Your task to perform on an android device: add a contact Image 0: 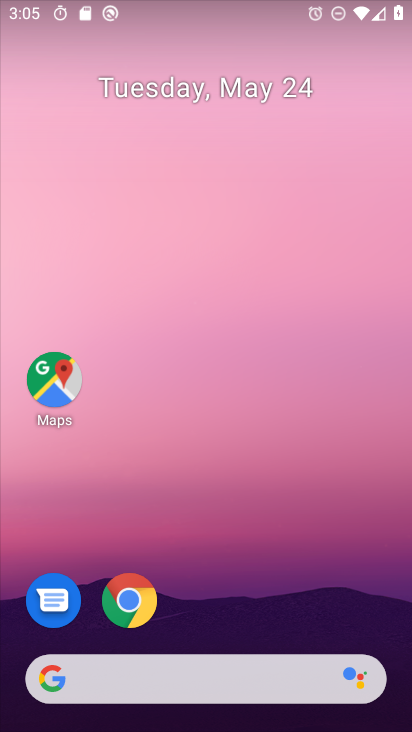
Step 0: drag from (250, 546) to (246, 172)
Your task to perform on an android device: add a contact Image 1: 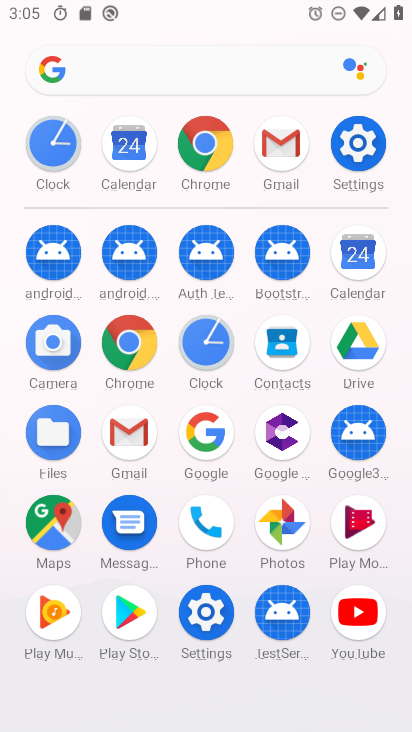
Step 1: click (275, 337)
Your task to perform on an android device: add a contact Image 2: 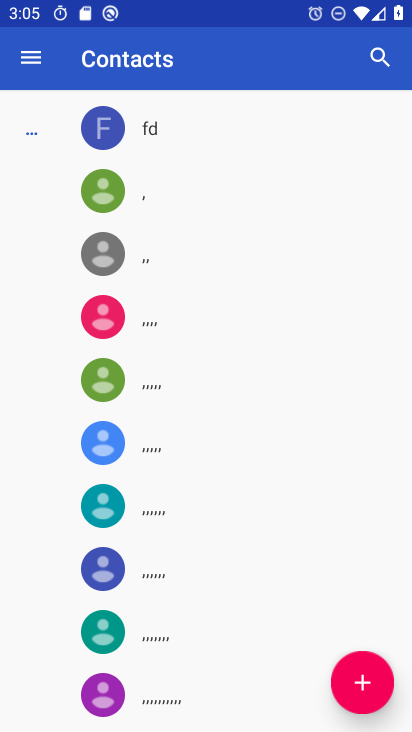
Step 2: click (358, 664)
Your task to perform on an android device: add a contact Image 3: 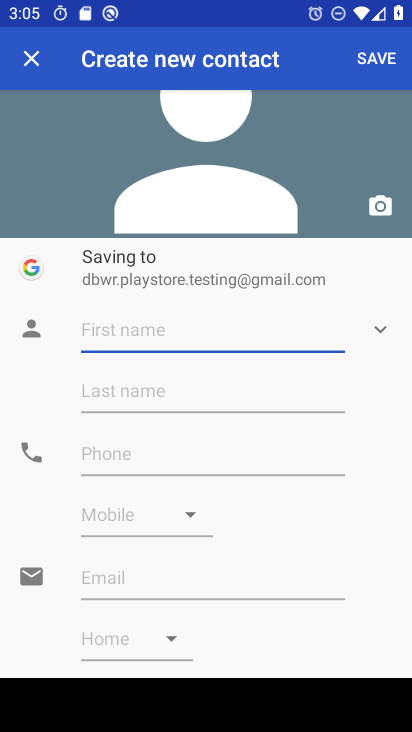
Step 3: type "lm,kj"
Your task to perform on an android device: add a contact Image 4: 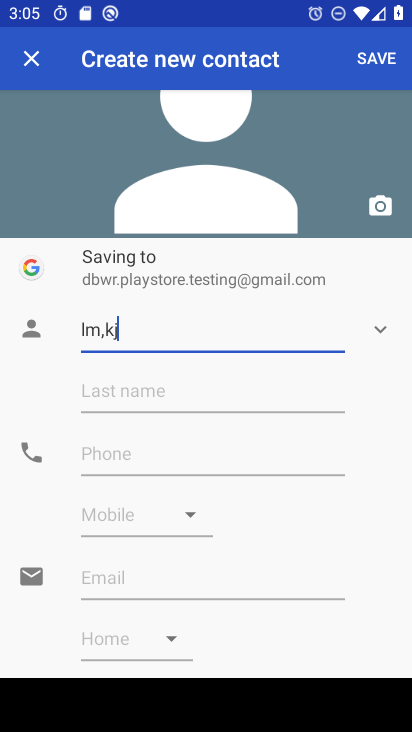
Step 4: type ""
Your task to perform on an android device: add a contact Image 5: 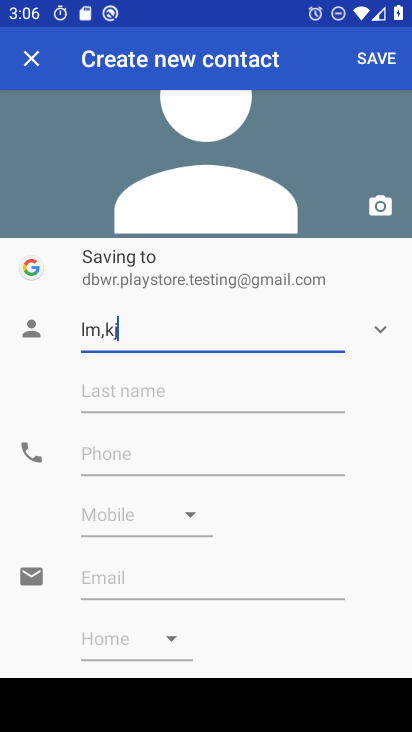
Step 5: click (378, 54)
Your task to perform on an android device: add a contact Image 6: 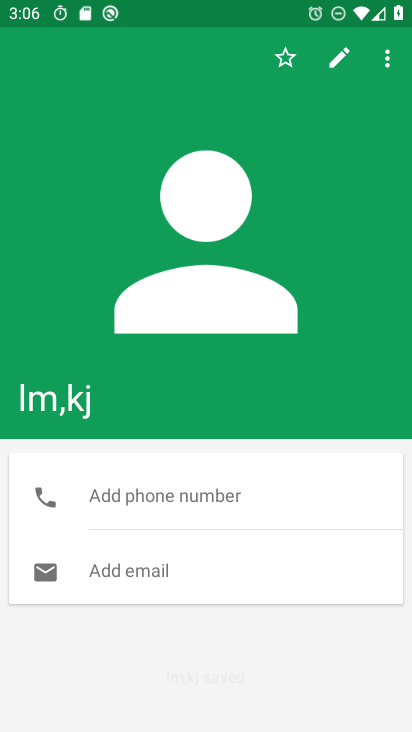
Step 6: task complete